Your task to perform on an android device: turn on data saver in the chrome app Image 0: 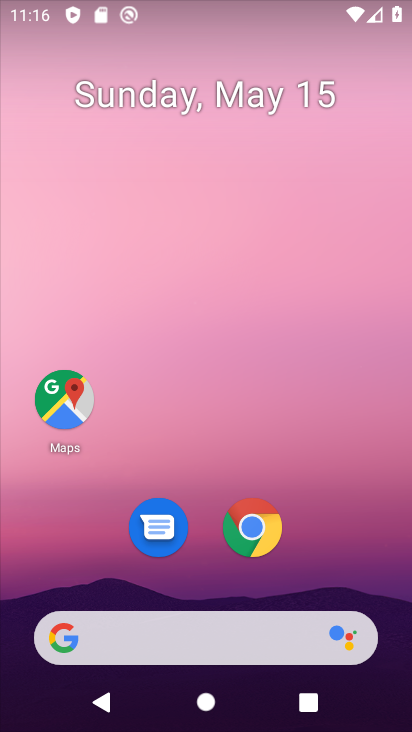
Step 0: click (273, 542)
Your task to perform on an android device: turn on data saver in the chrome app Image 1: 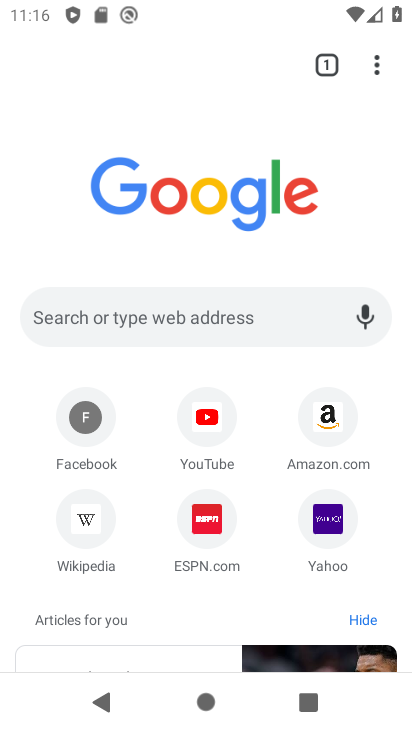
Step 1: click (379, 60)
Your task to perform on an android device: turn on data saver in the chrome app Image 2: 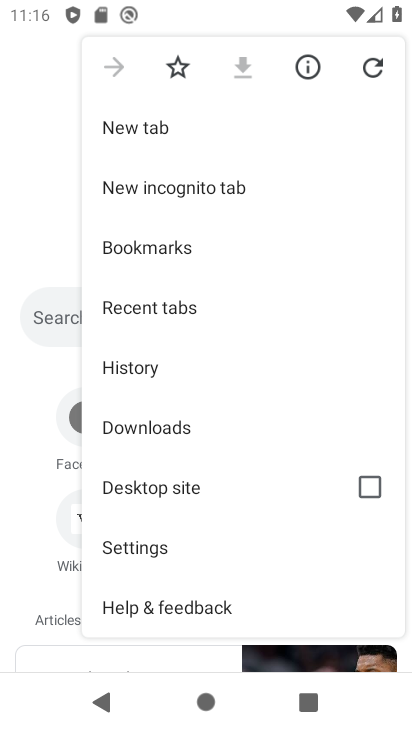
Step 2: click (184, 527)
Your task to perform on an android device: turn on data saver in the chrome app Image 3: 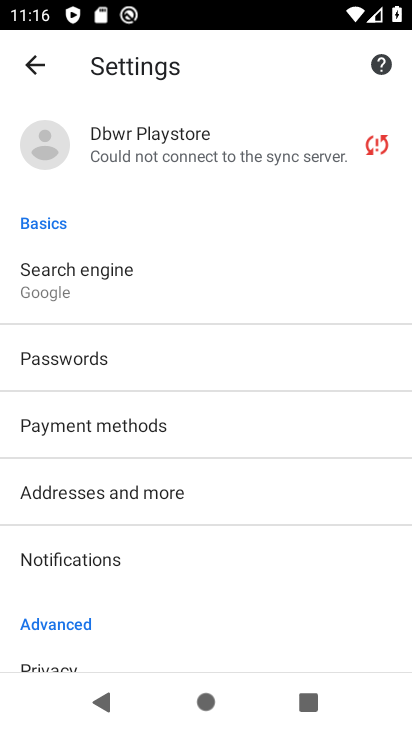
Step 3: drag from (184, 527) to (185, 32)
Your task to perform on an android device: turn on data saver in the chrome app Image 4: 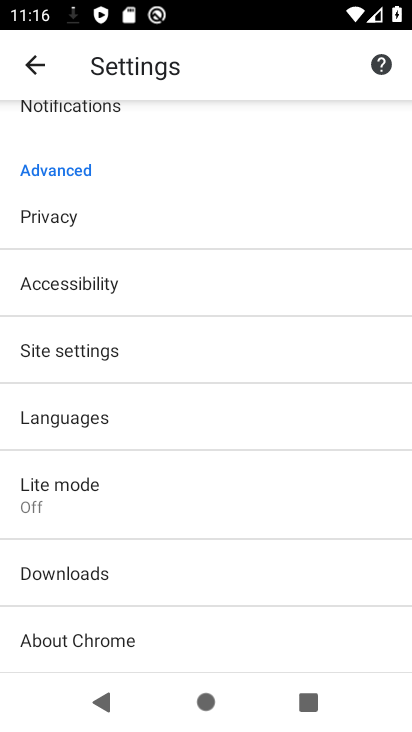
Step 4: click (188, 459)
Your task to perform on an android device: turn on data saver in the chrome app Image 5: 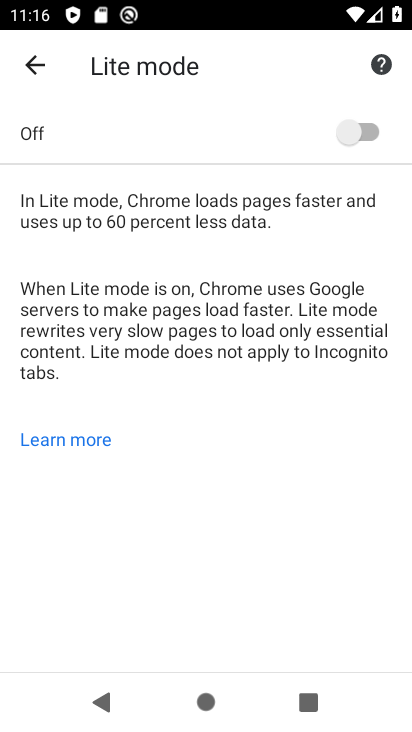
Step 5: click (376, 119)
Your task to perform on an android device: turn on data saver in the chrome app Image 6: 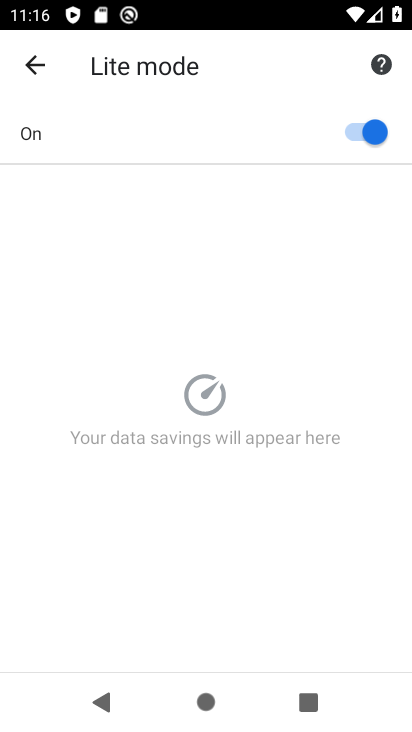
Step 6: task complete